Your task to perform on an android device: Add "usb-c to usb-b" to the cart on ebay, then select checkout. Image 0: 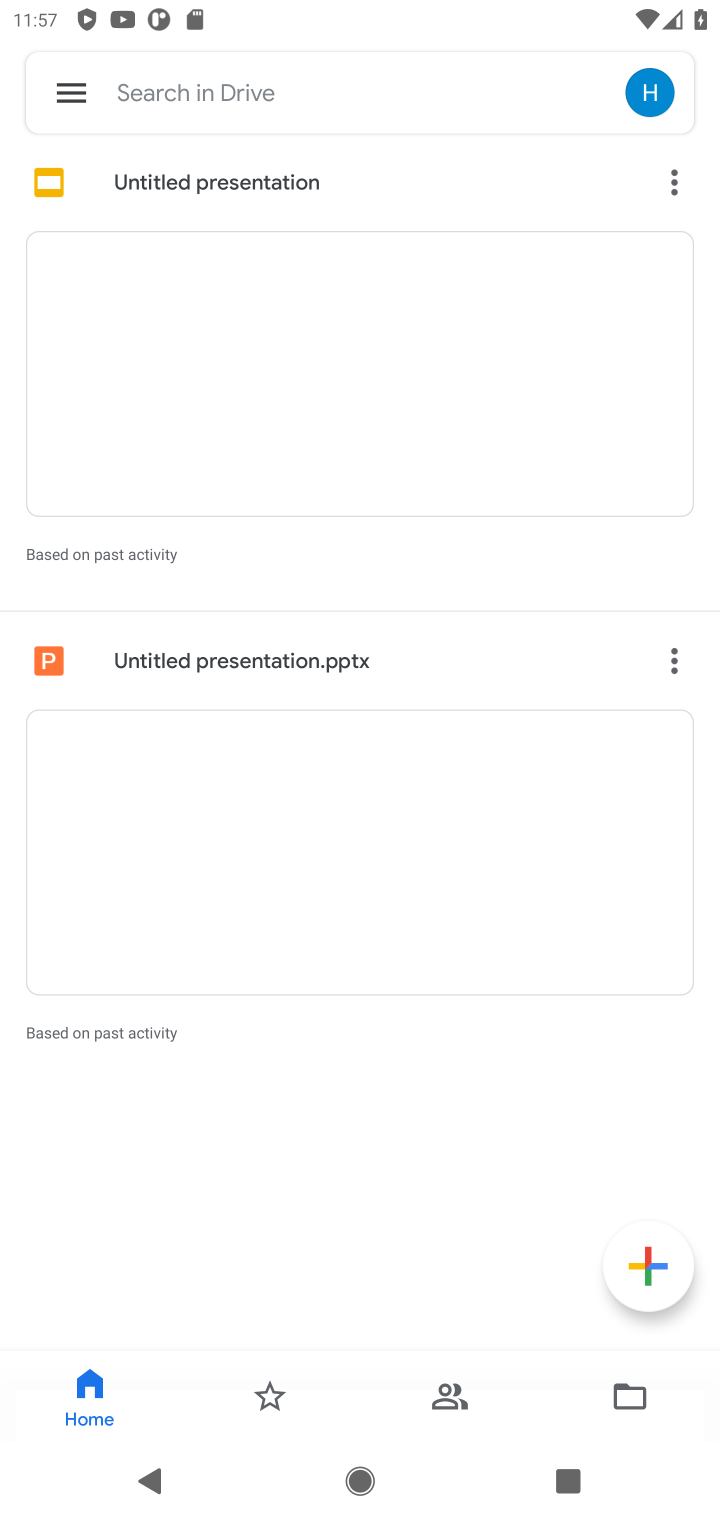
Step 0: press home button
Your task to perform on an android device: Add "usb-c to usb-b" to the cart on ebay, then select checkout. Image 1: 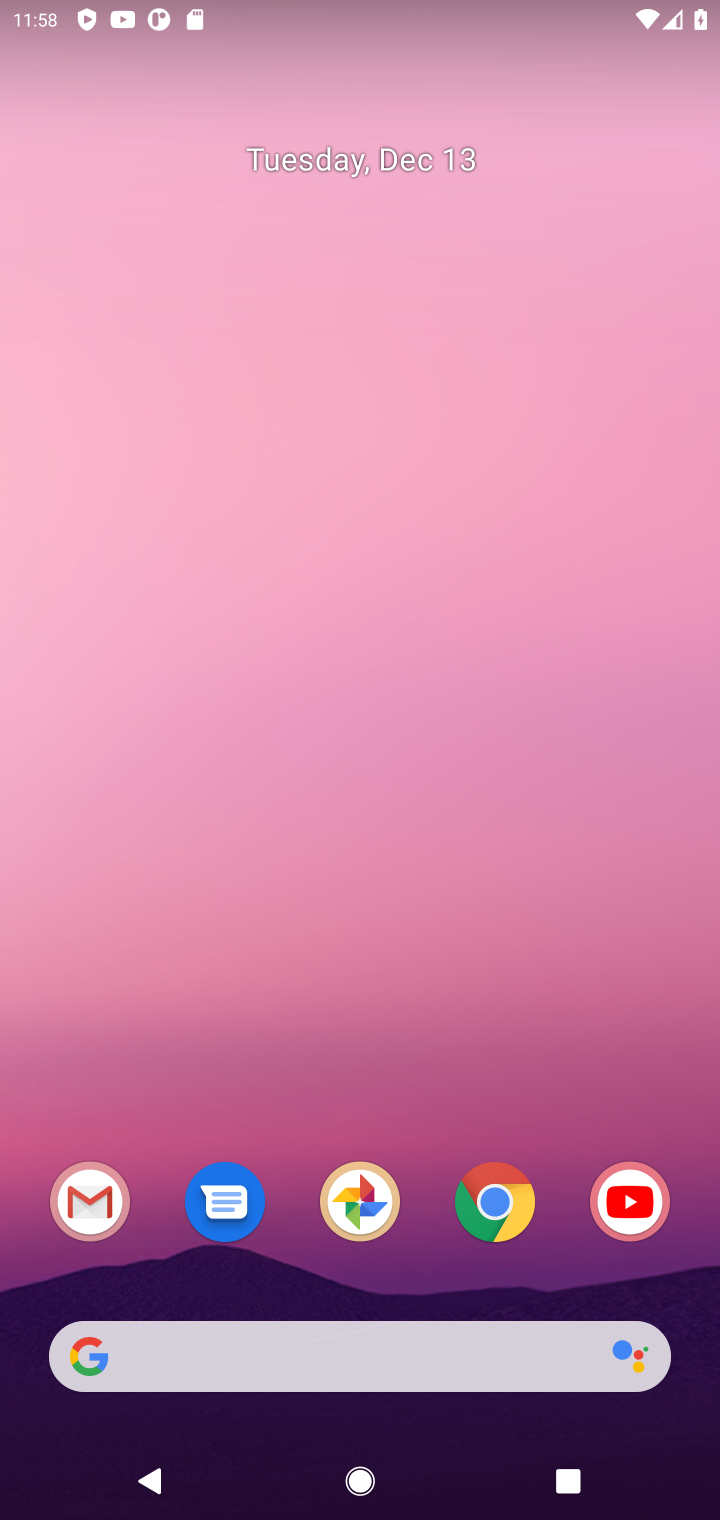
Step 1: click (491, 1195)
Your task to perform on an android device: Add "usb-c to usb-b" to the cart on ebay, then select checkout. Image 2: 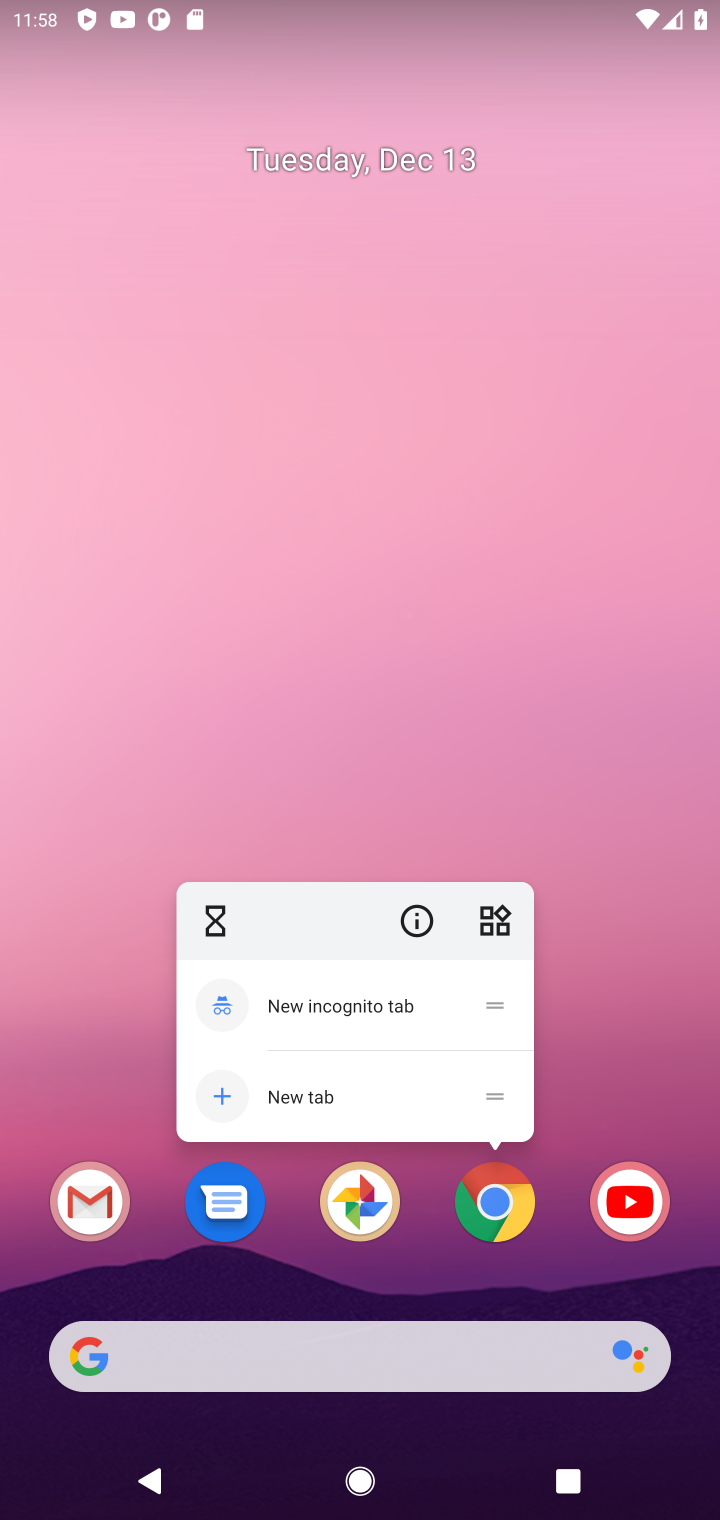
Step 2: click (492, 1204)
Your task to perform on an android device: Add "usb-c to usb-b" to the cart on ebay, then select checkout. Image 3: 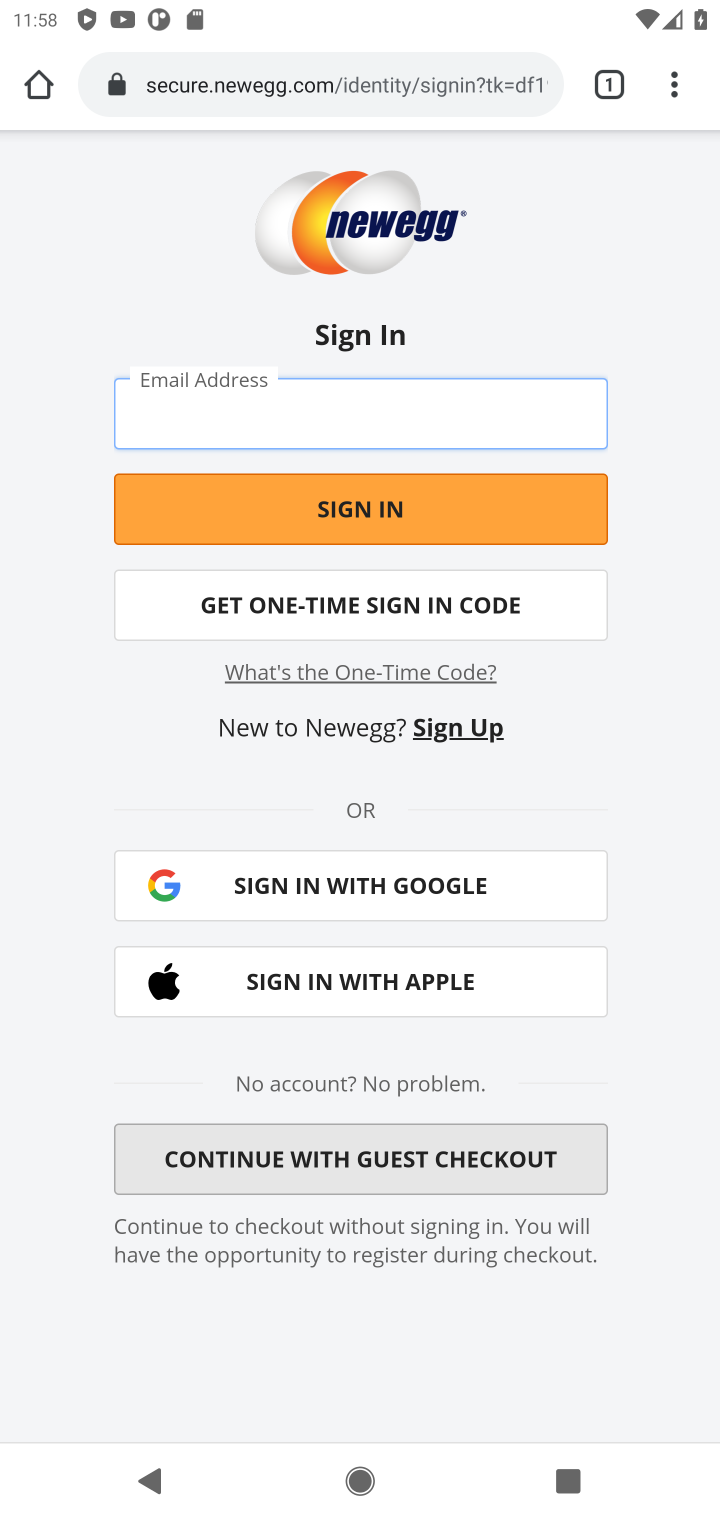
Step 3: click (342, 76)
Your task to perform on an android device: Add "usb-c to usb-b" to the cart on ebay, then select checkout. Image 4: 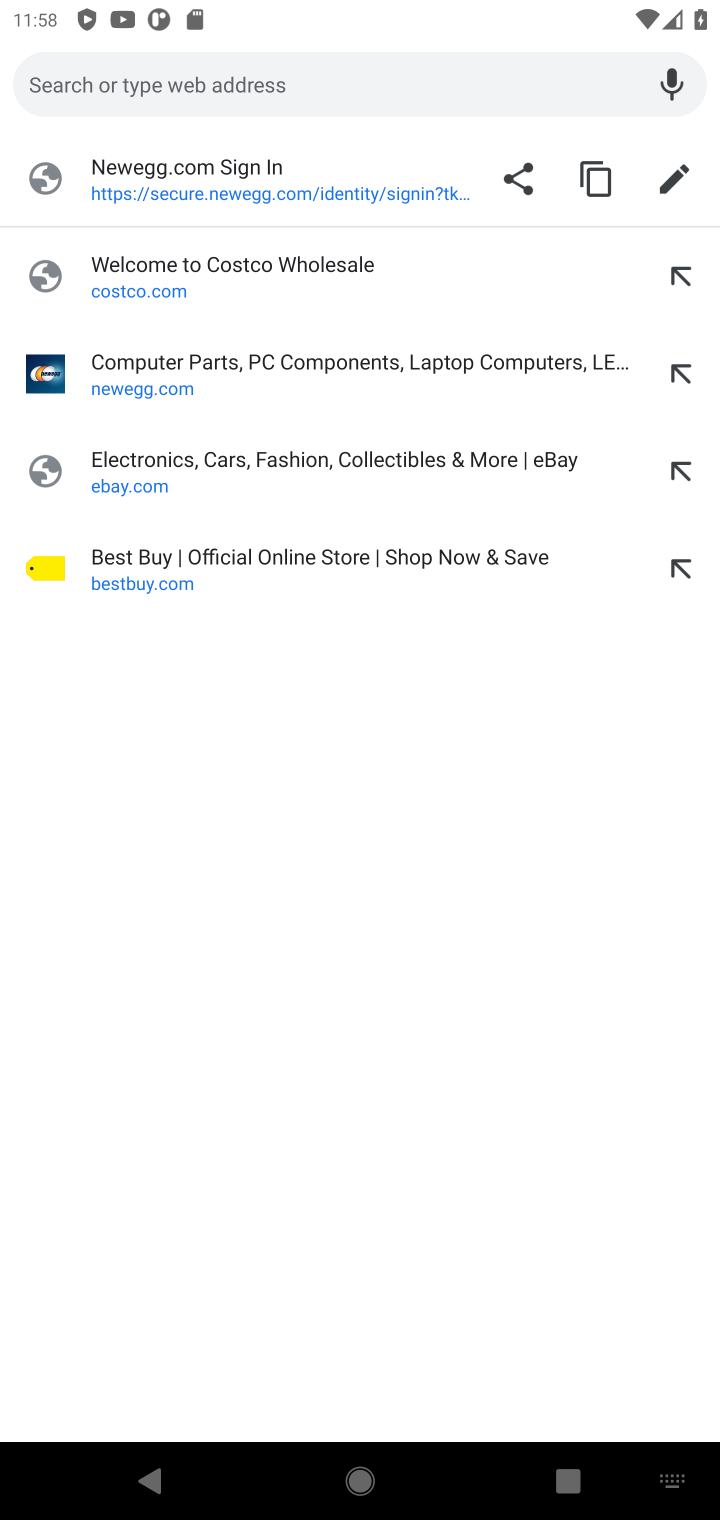
Step 4: type "ebay"
Your task to perform on an android device: Add "usb-c to usb-b" to the cart on ebay, then select checkout. Image 5: 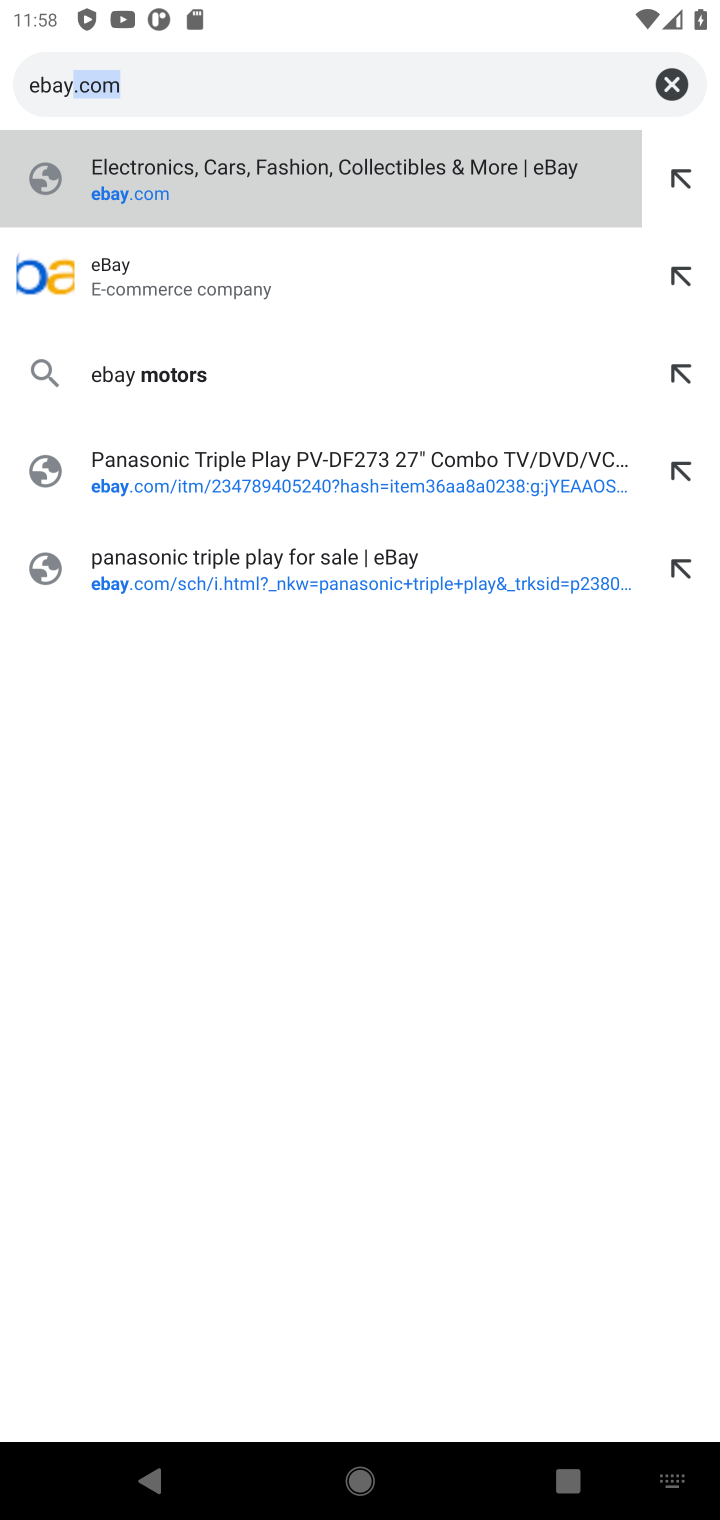
Step 5: click (319, 198)
Your task to perform on an android device: Add "usb-c to usb-b" to the cart on ebay, then select checkout. Image 6: 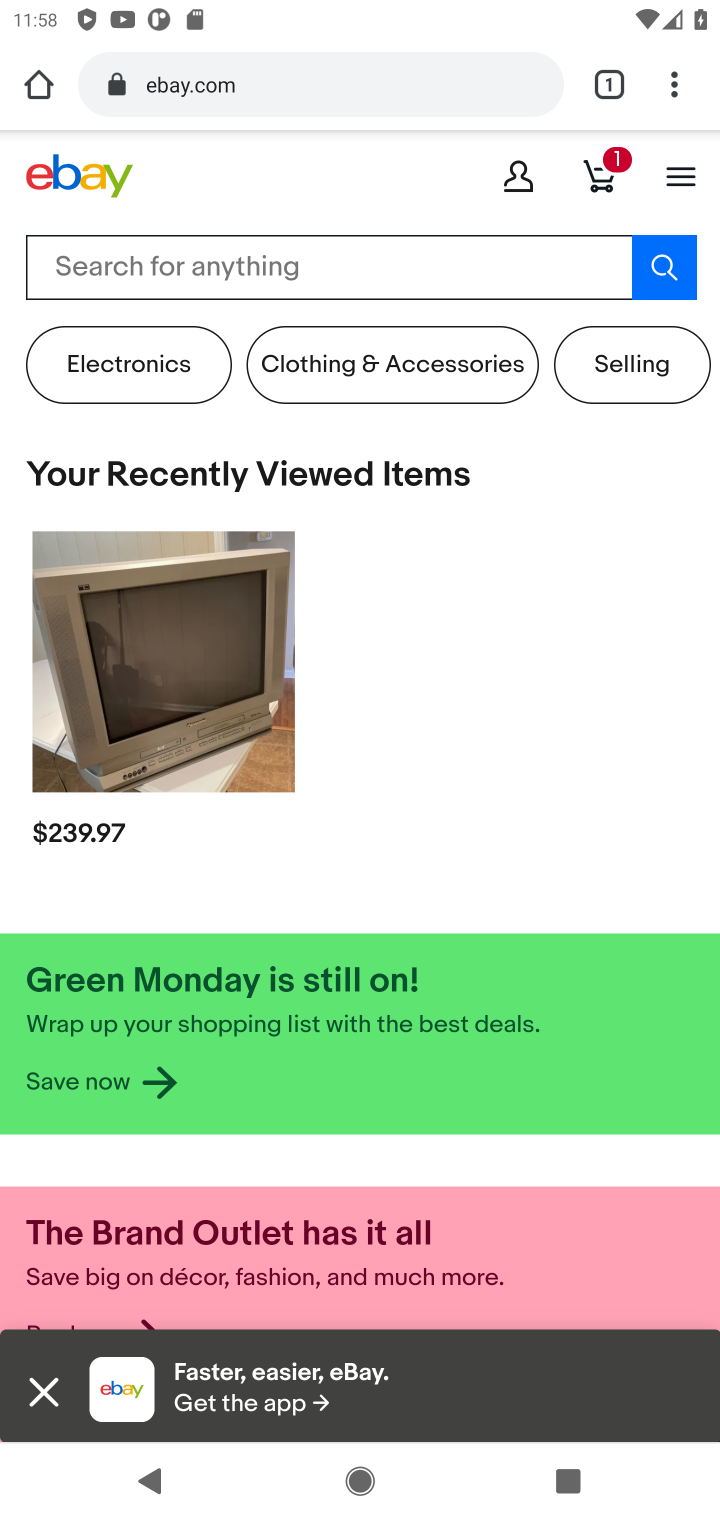
Step 6: click (282, 263)
Your task to perform on an android device: Add "usb-c to usb-b" to the cart on ebay, then select checkout. Image 7: 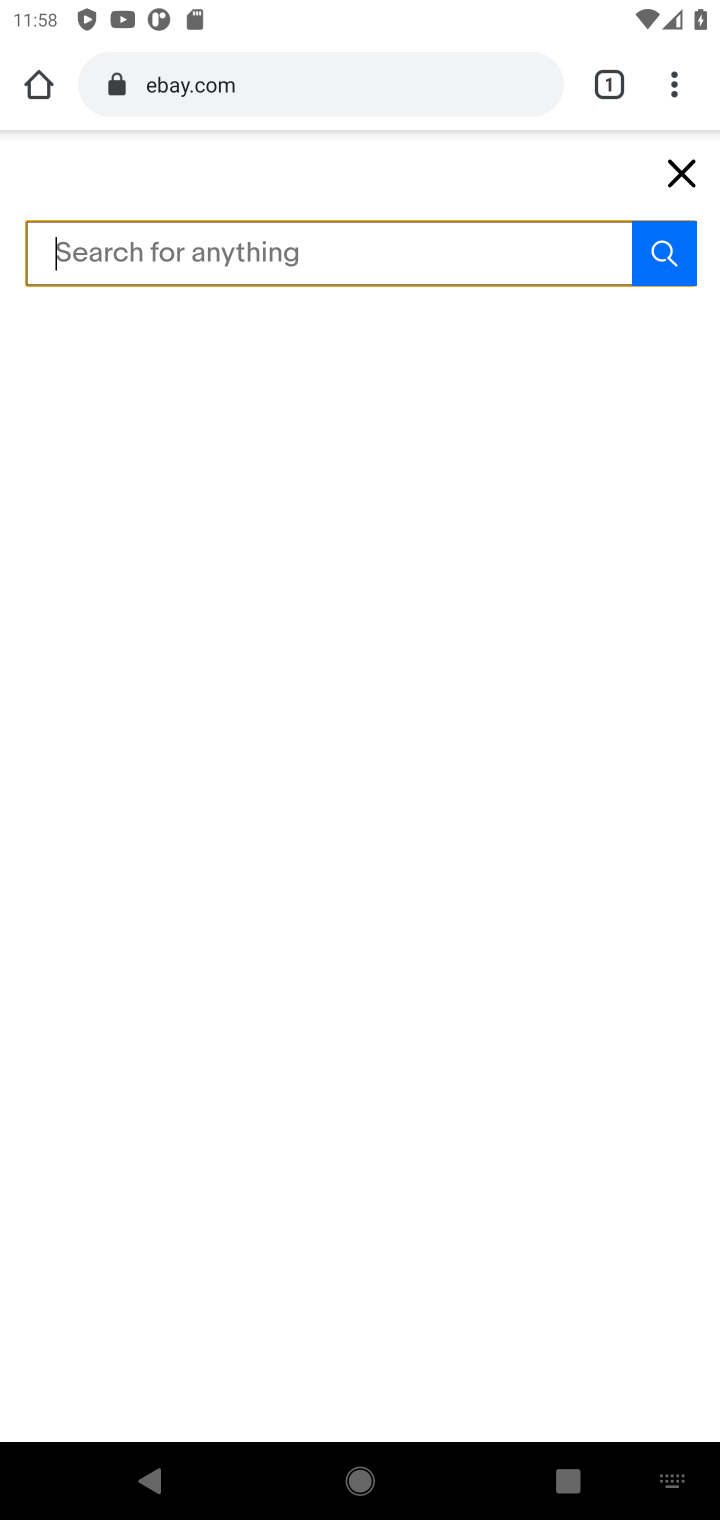
Step 7: type "usb-c to usb-b"
Your task to perform on an android device: Add "usb-c to usb-b" to the cart on ebay, then select checkout. Image 8: 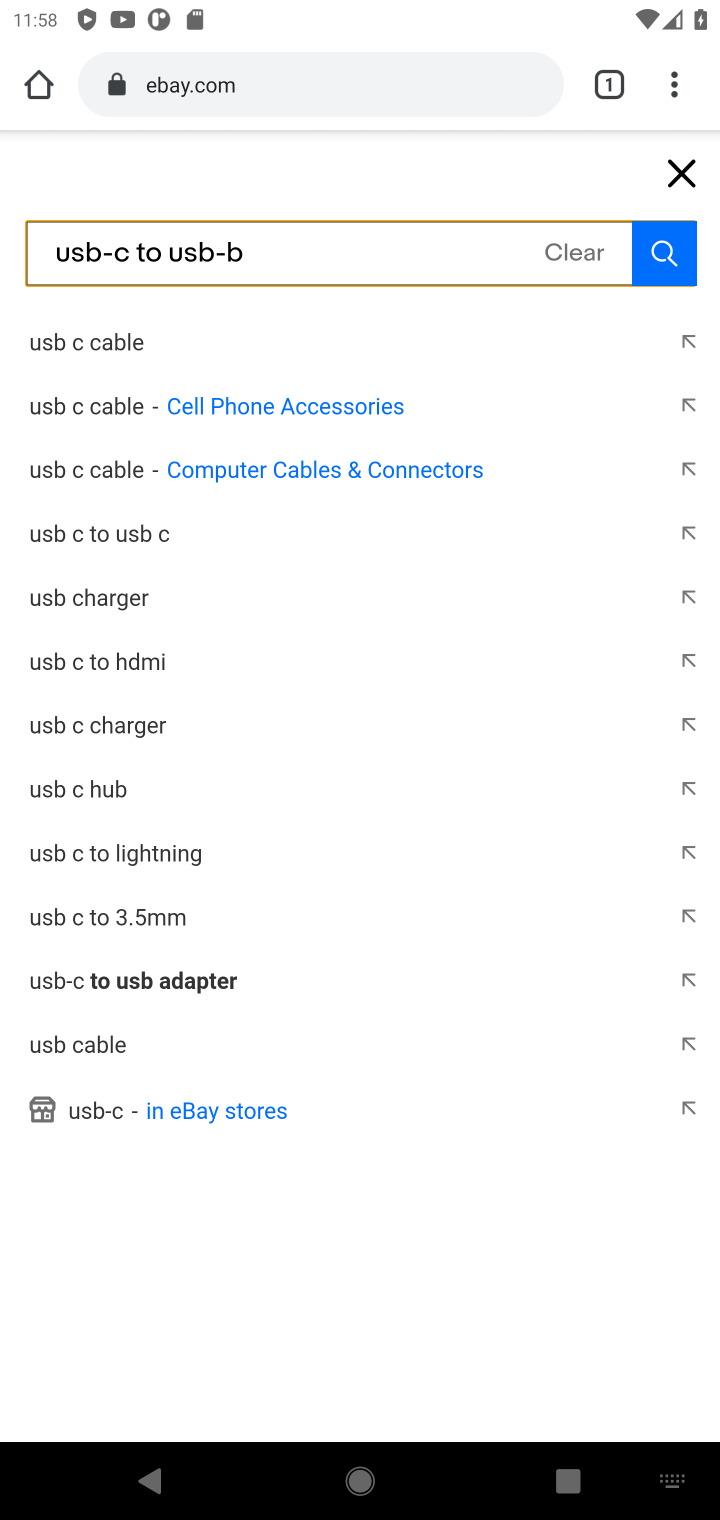
Step 8: click (169, 350)
Your task to perform on an android device: Add "usb-c to usb-b" to the cart on ebay, then select checkout. Image 9: 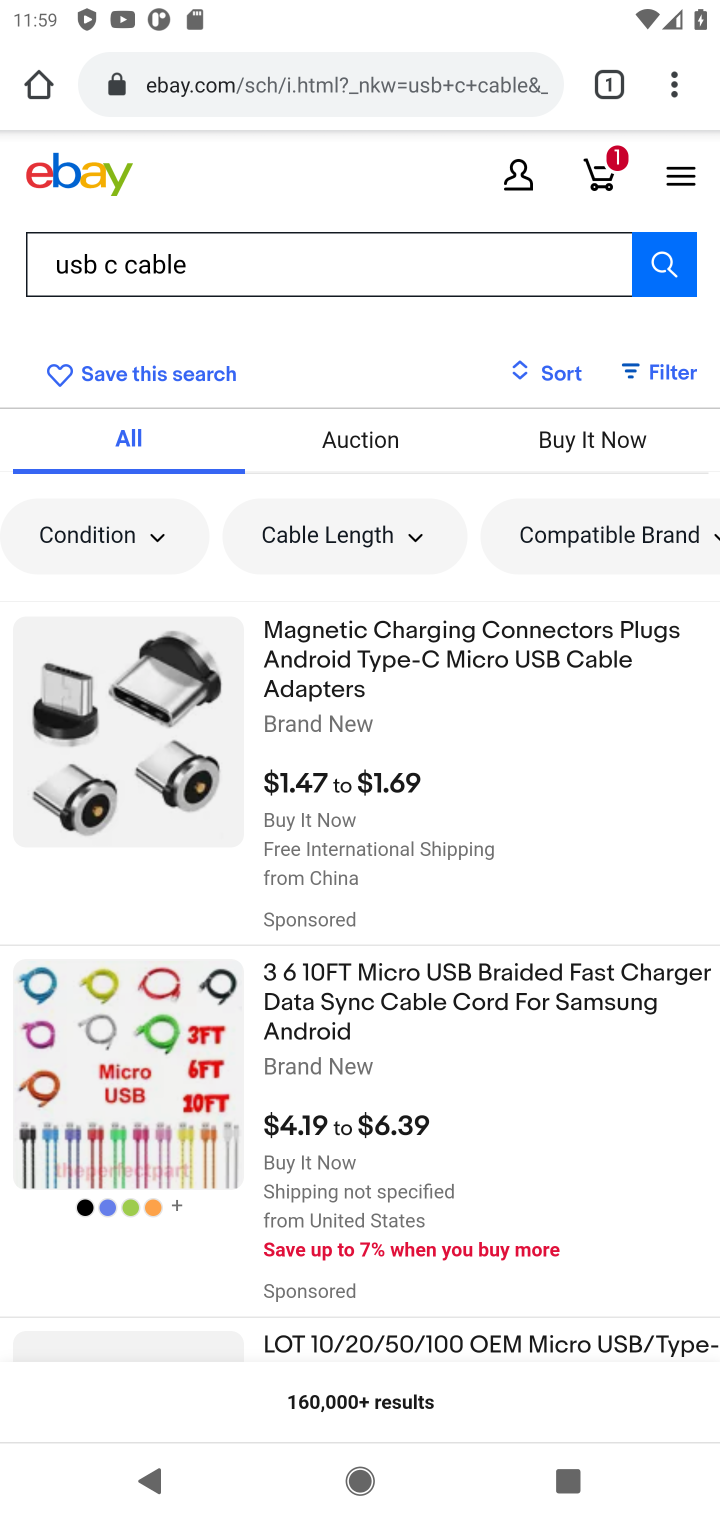
Step 9: click (485, 699)
Your task to perform on an android device: Add "usb-c to usb-b" to the cart on ebay, then select checkout. Image 10: 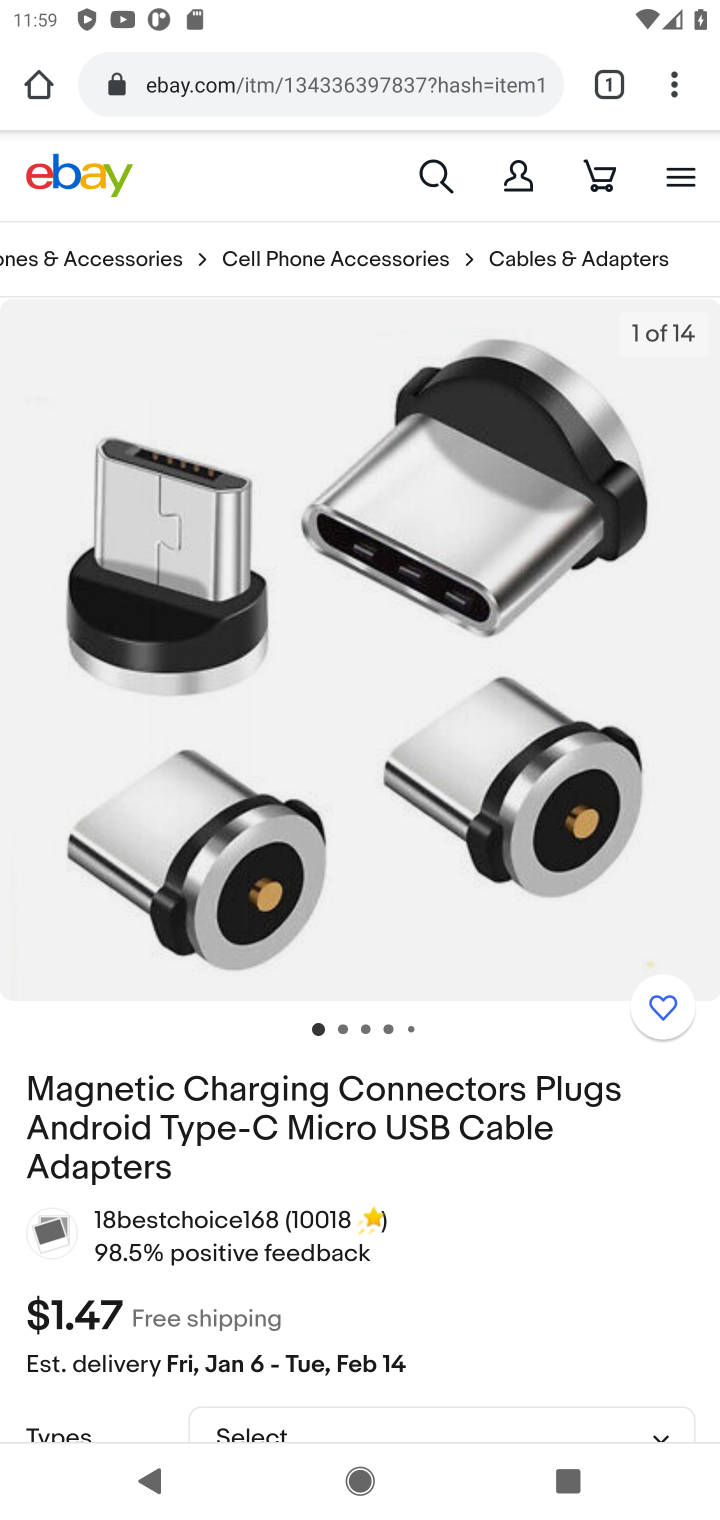
Step 10: drag from (441, 1242) to (357, 357)
Your task to perform on an android device: Add "usb-c to usb-b" to the cart on ebay, then select checkout. Image 11: 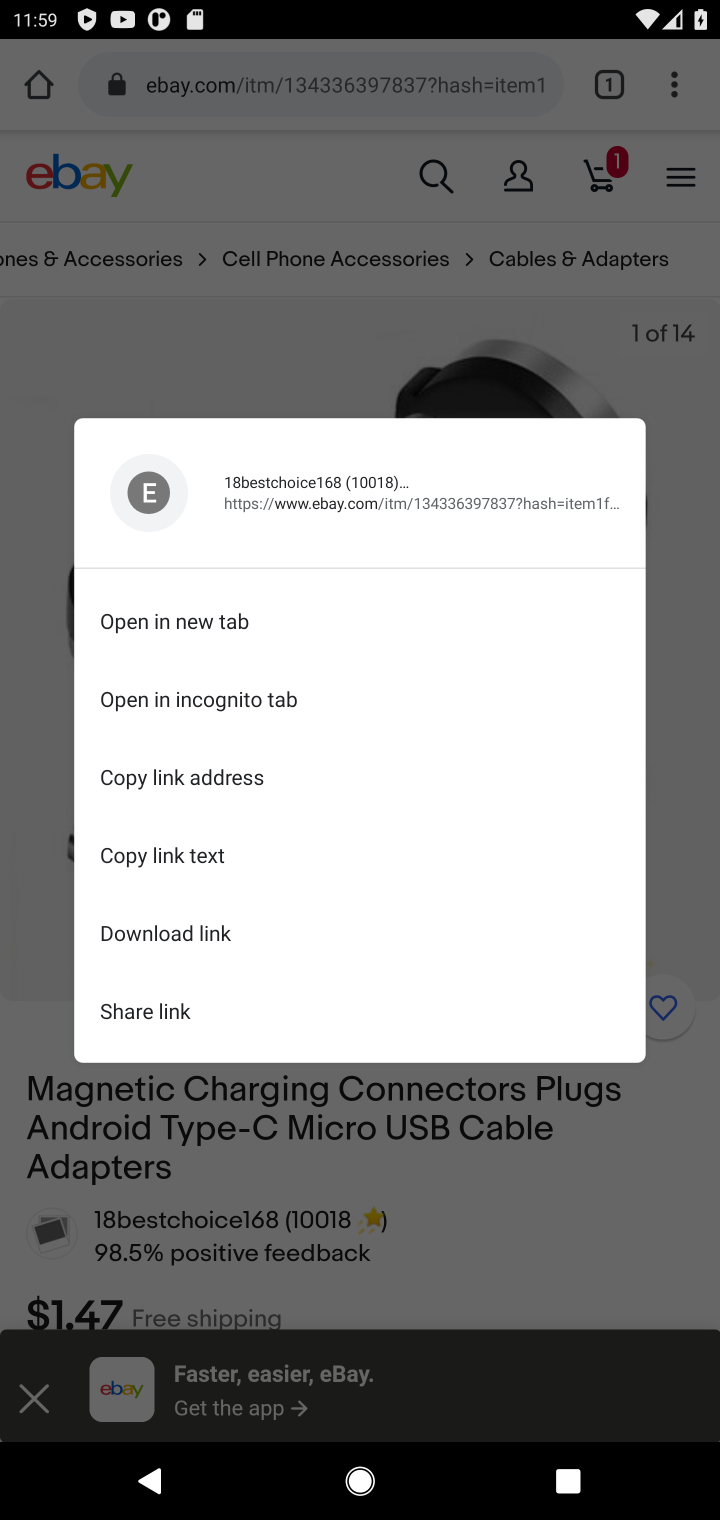
Step 11: click (627, 1227)
Your task to perform on an android device: Add "usb-c to usb-b" to the cart on ebay, then select checkout. Image 12: 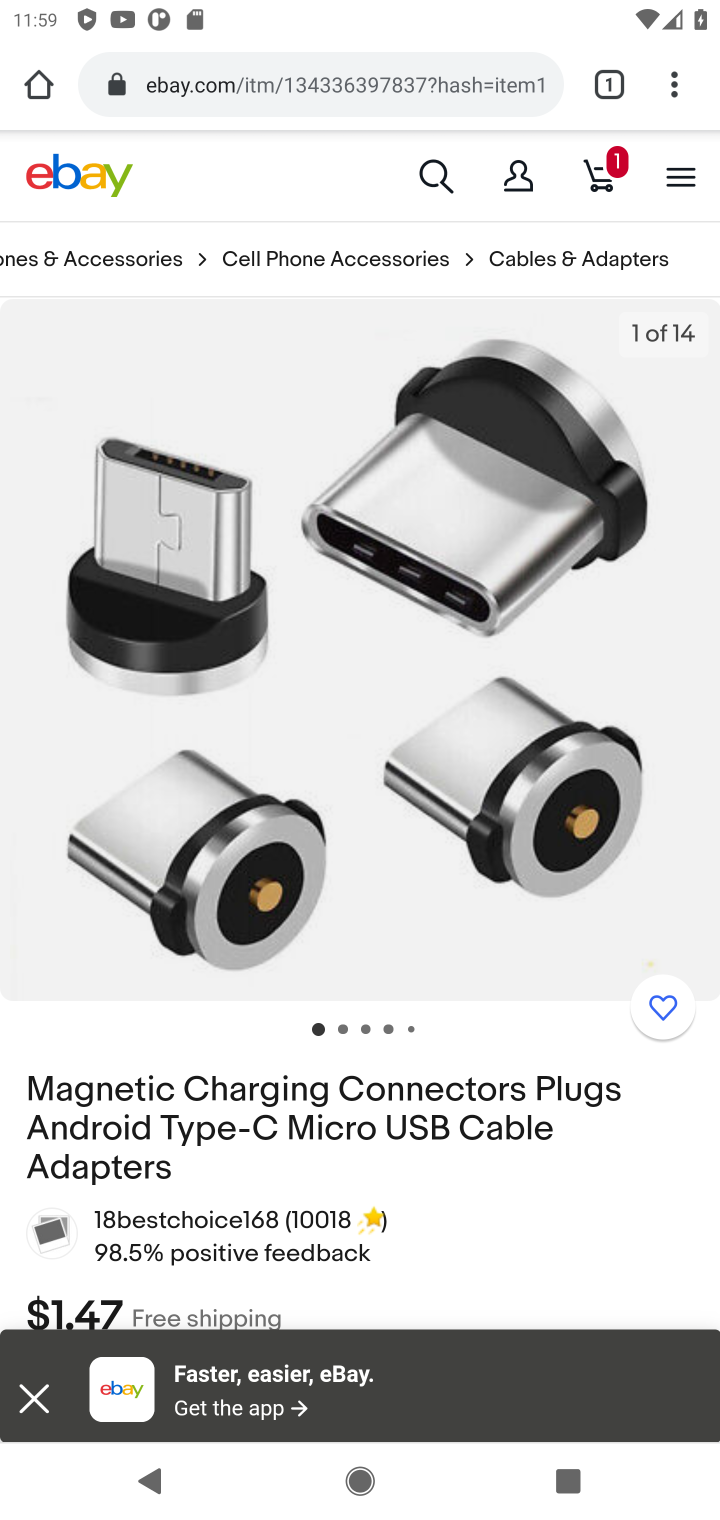
Step 12: drag from (525, 1210) to (444, 246)
Your task to perform on an android device: Add "usb-c to usb-b" to the cart on ebay, then select checkout. Image 13: 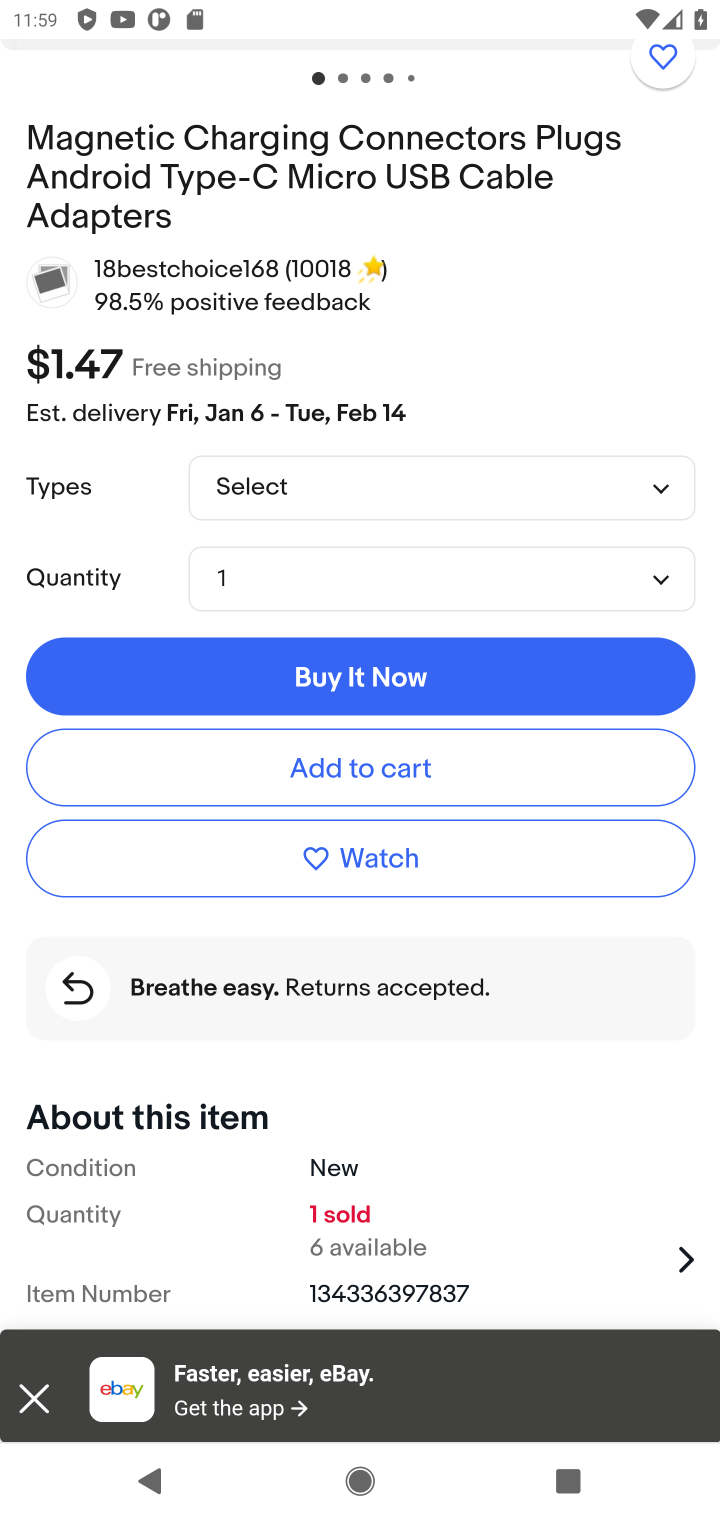
Step 13: click (413, 772)
Your task to perform on an android device: Add "usb-c to usb-b" to the cart on ebay, then select checkout. Image 14: 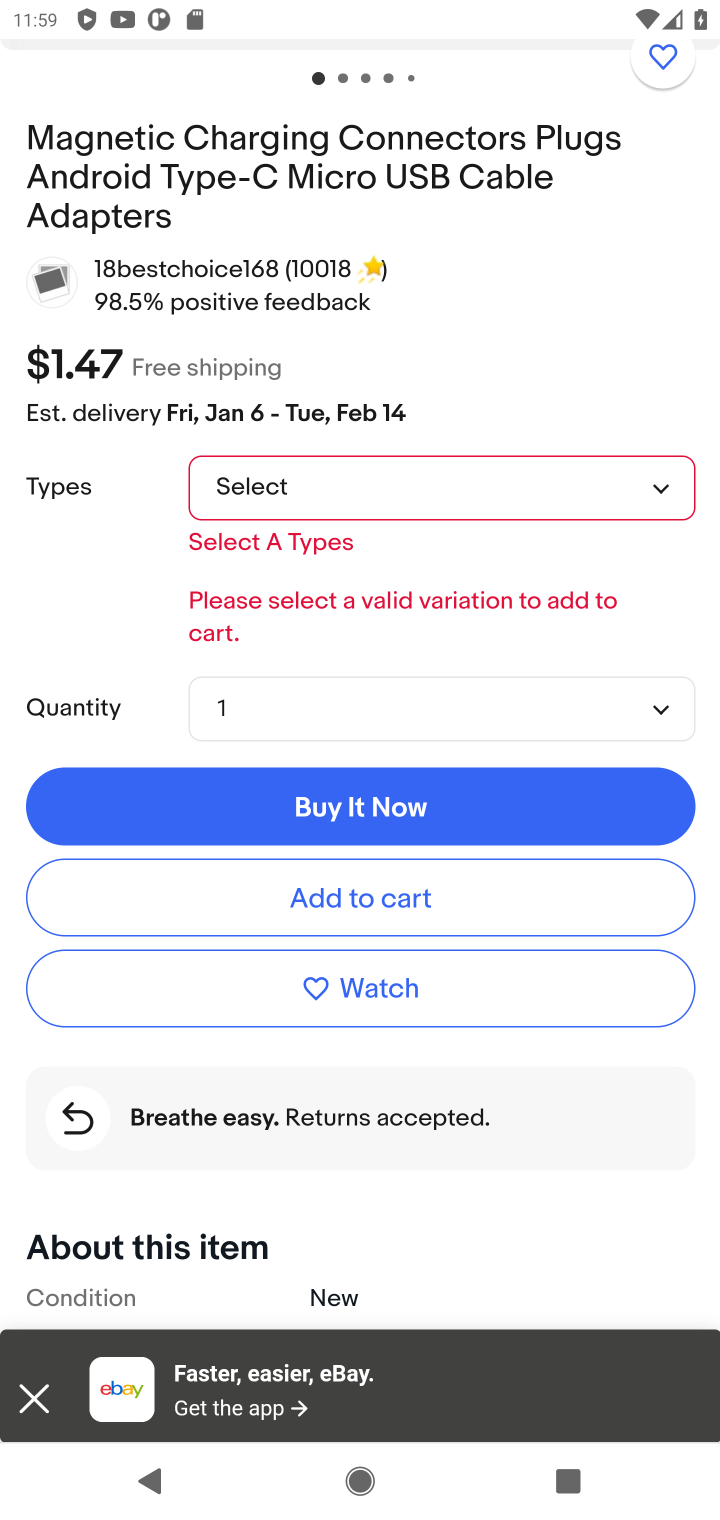
Step 14: click (523, 490)
Your task to perform on an android device: Add "usb-c to usb-b" to the cart on ebay, then select checkout. Image 15: 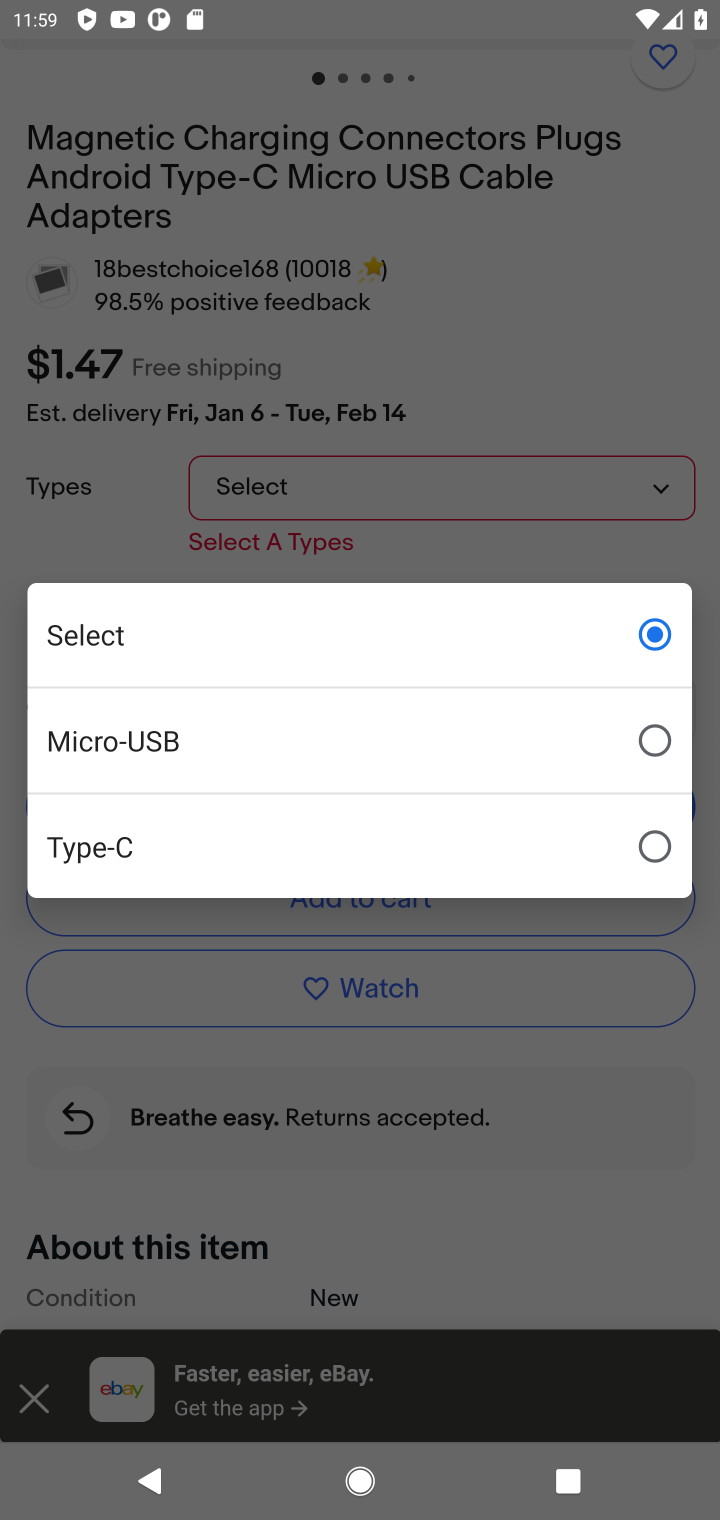
Step 15: click (228, 754)
Your task to perform on an android device: Add "usb-c to usb-b" to the cart on ebay, then select checkout. Image 16: 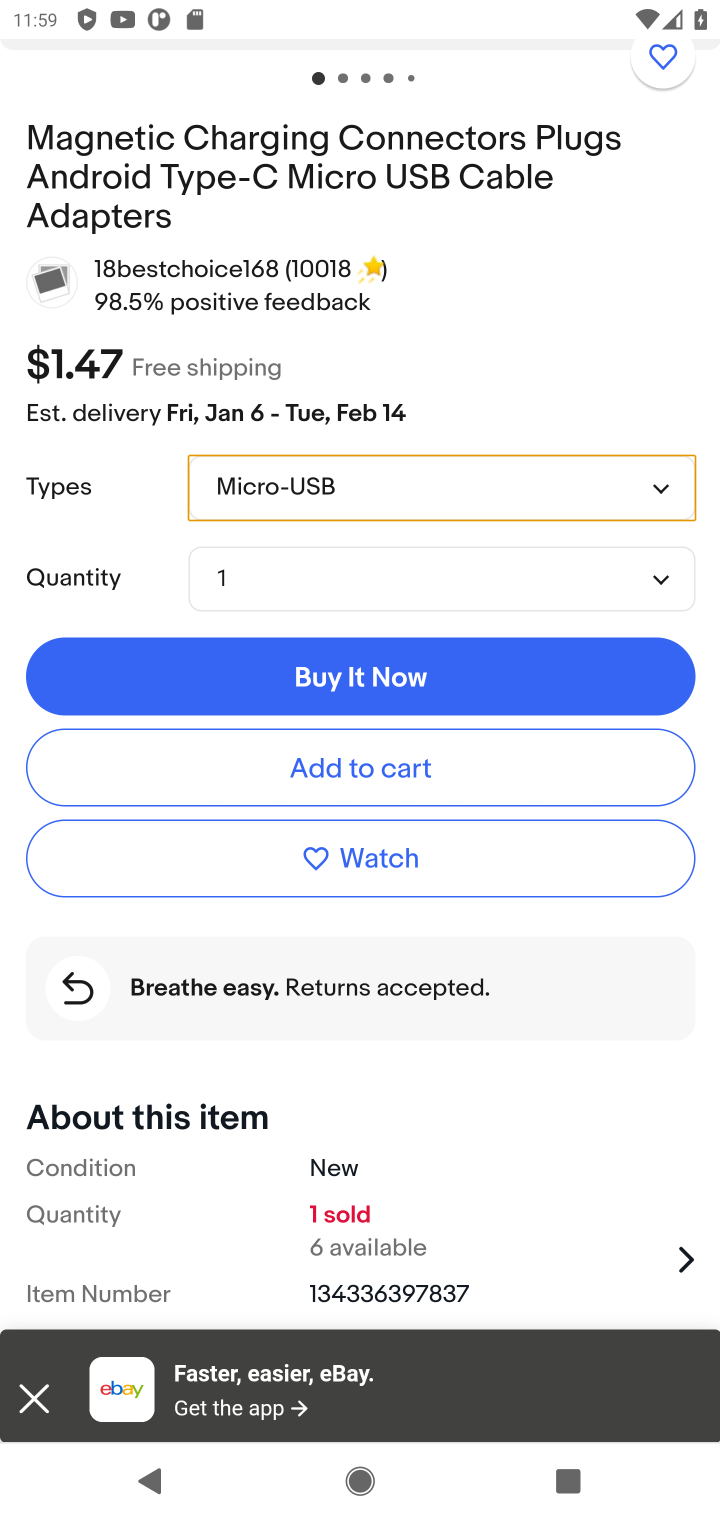
Step 16: click (356, 779)
Your task to perform on an android device: Add "usb-c to usb-b" to the cart on ebay, then select checkout. Image 17: 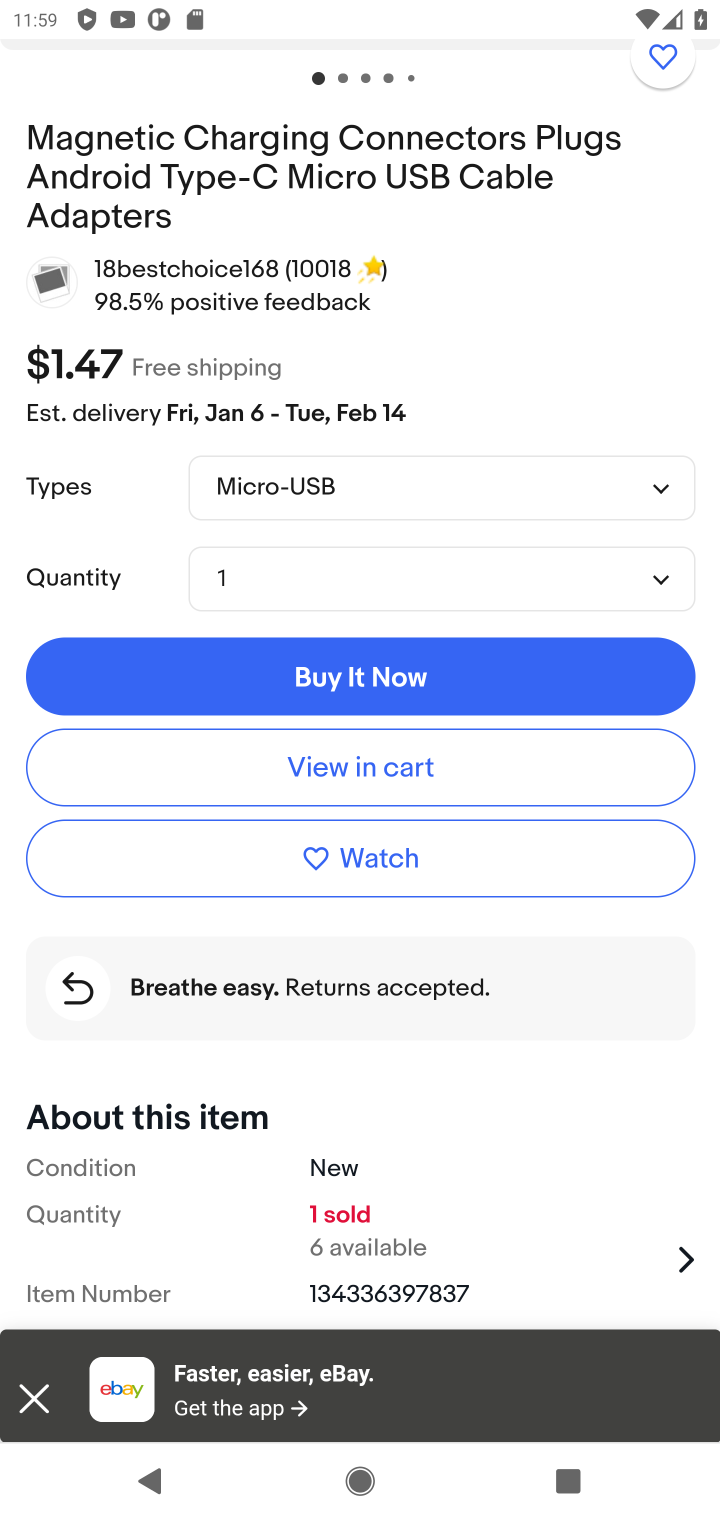
Step 17: click (356, 779)
Your task to perform on an android device: Add "usb-c to usb-b" to the cart on ebay, then select checkout. Image 18: 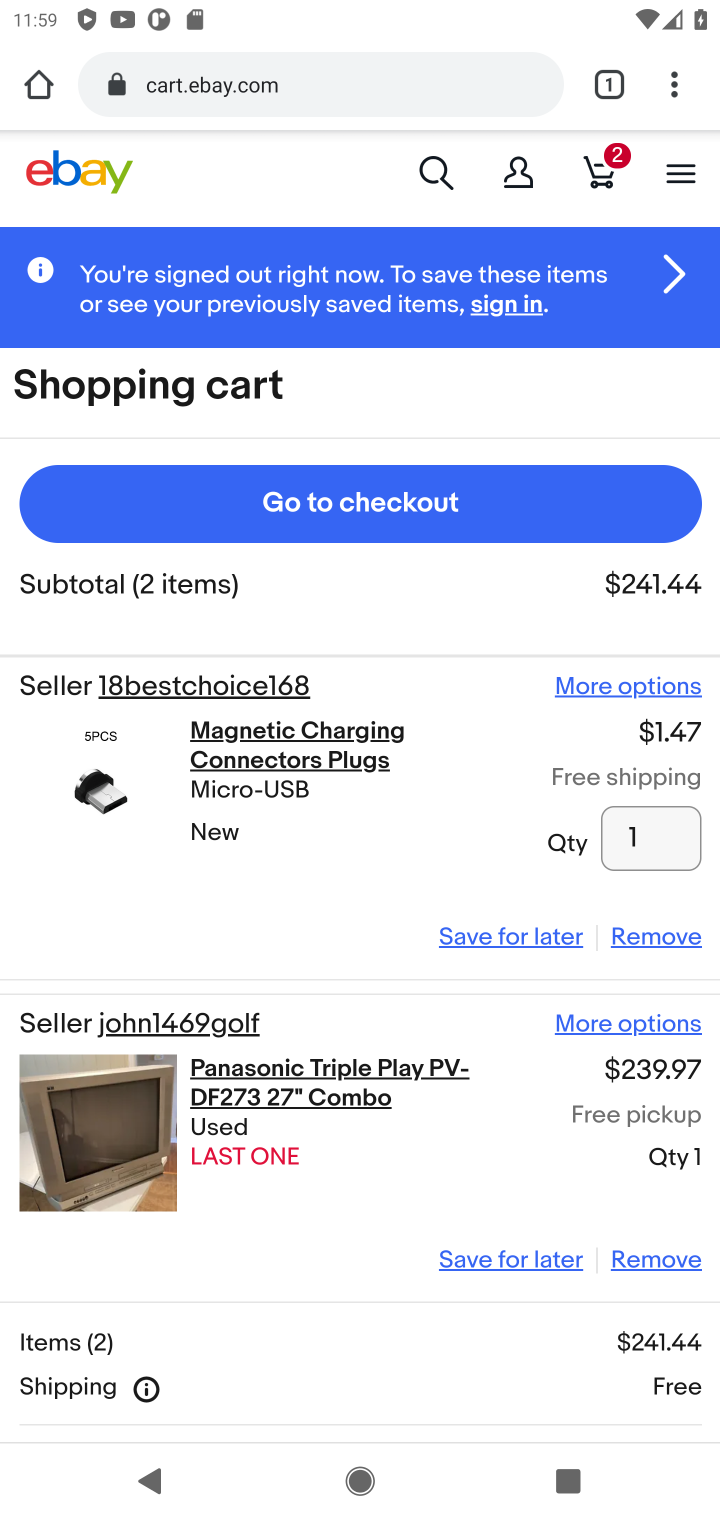
Step 18: click (391, 515)
Your task to perform on an android device: Add "usb-c to usb-b" to the cart on ebay, then select checkout. Image 19: 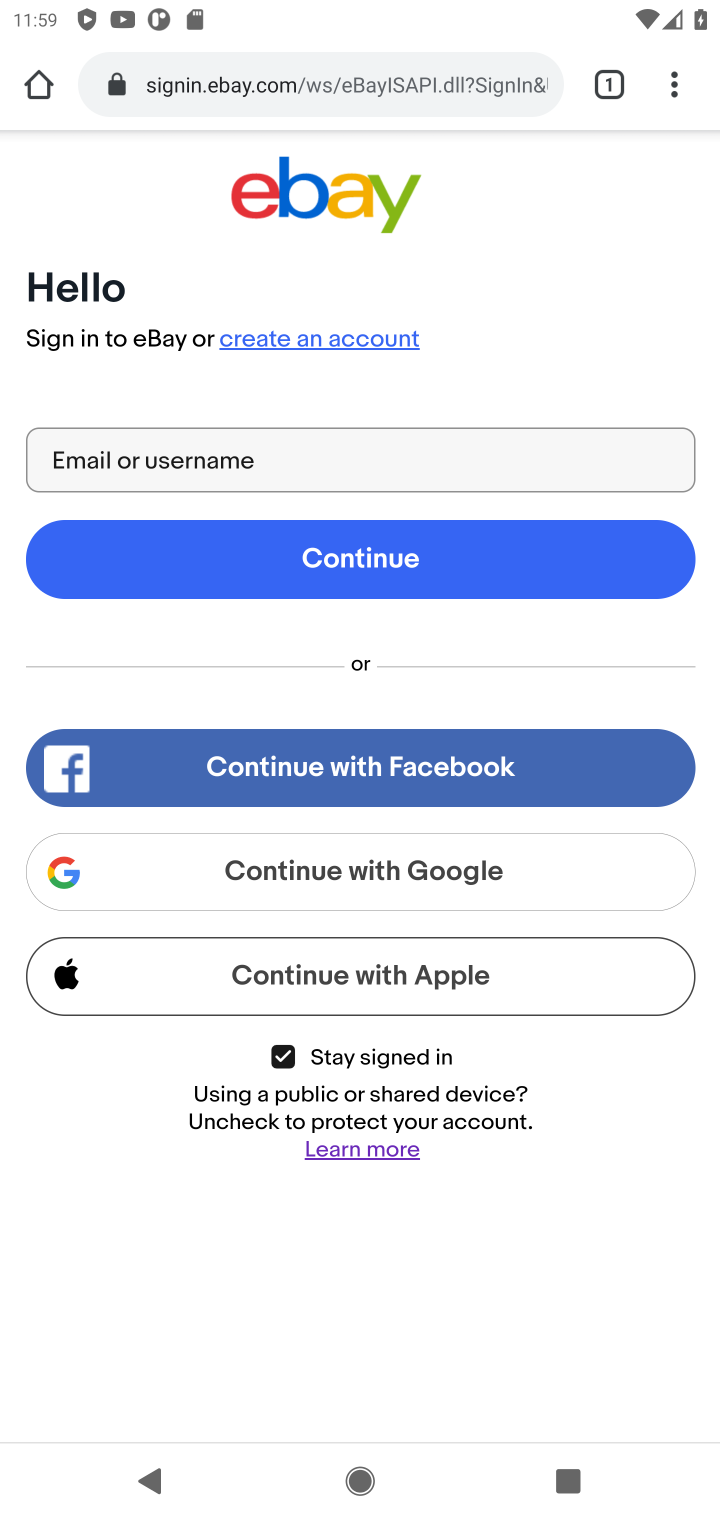
Step 19: task complete